Your task to perform on an android device: Go to notification settings Image 0: 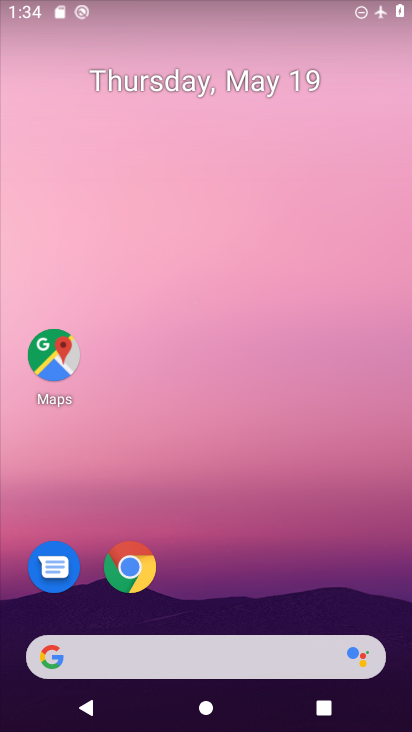
Step 0: drag from (300, 534) to (281, 50)
Your task to perform on an android device: Go to notification settings Image 1: 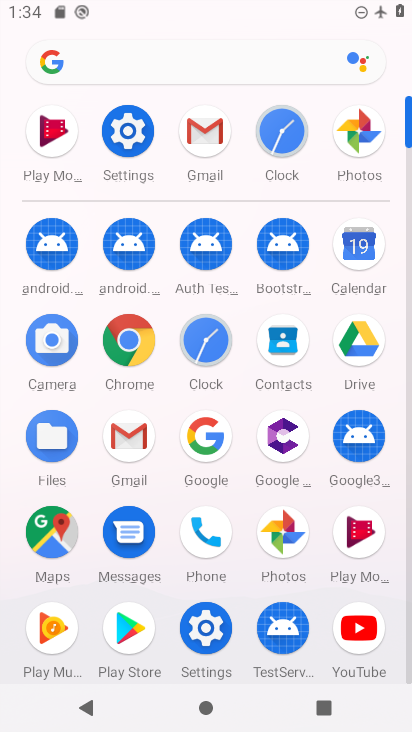
Step 1: click (123, 120)
Your task to perform on an android device: Go to notification settings Image 2: 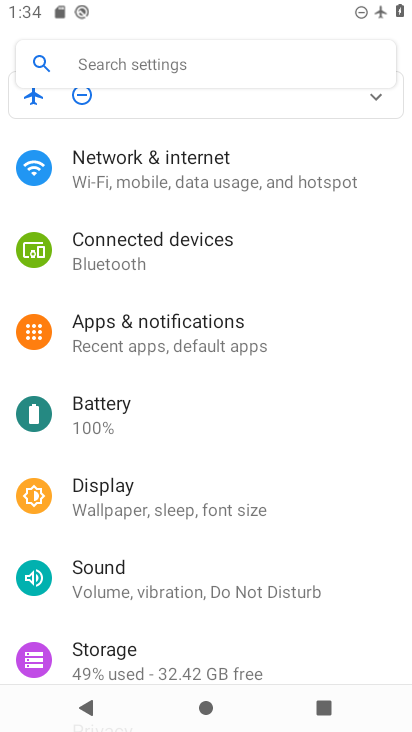
Step 2: click (194, 326)
Your task to perform on an android device: Go to notification settings Image 3: 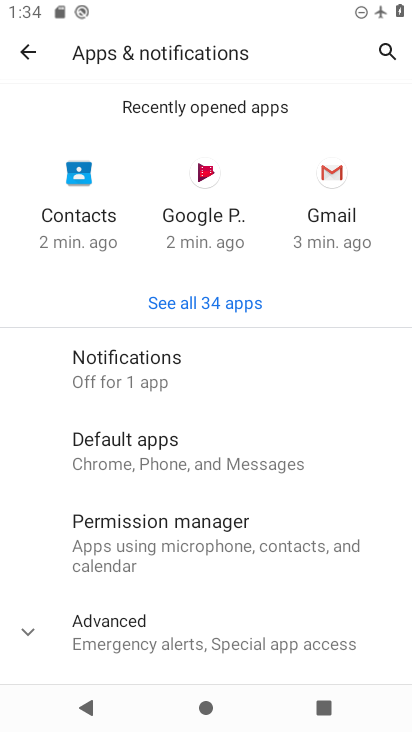
Step 3: click (191, 361)
Your task to perform on an android device: Go to notification settings Image 4: 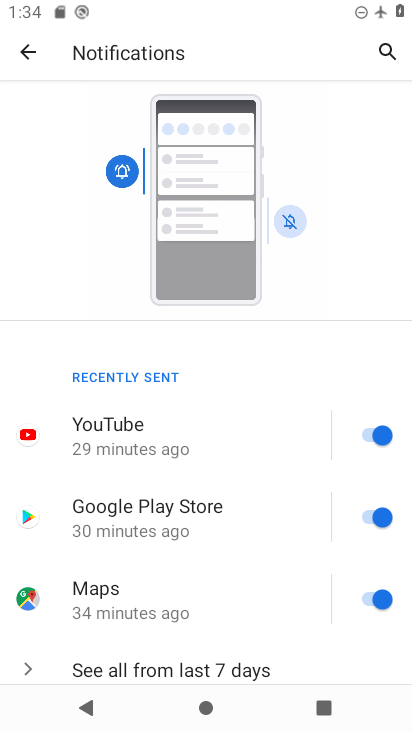
Step 4: task complete